Your task to perform on an android device: change the clock style Image 0: 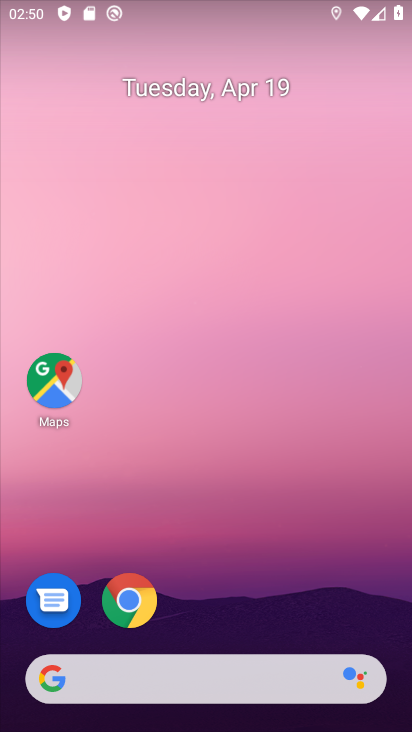
Step 0: drag from (298, 542) to (341, 91)
Your task to perform on an android device: change the clock style Image 1: 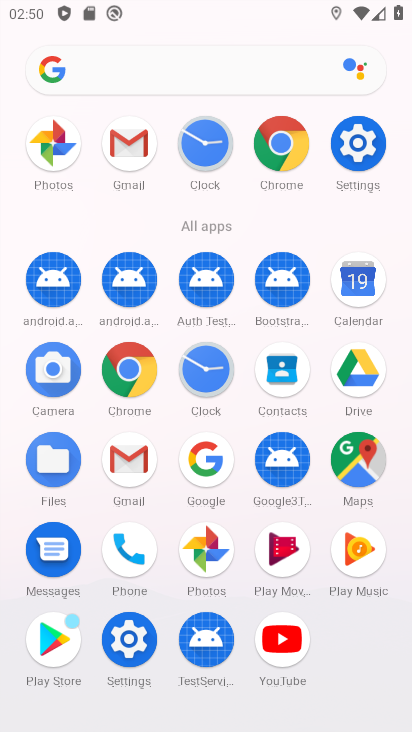
Step 1: click (209, 360)
Your task to perform on an android device: change the clock style Image 2: 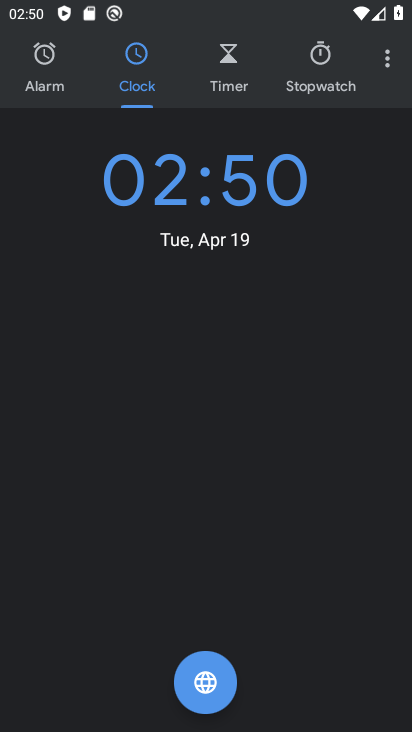
Step 2: click (392, 71)
Your task to perform on an android device: change the clock style Image 3: 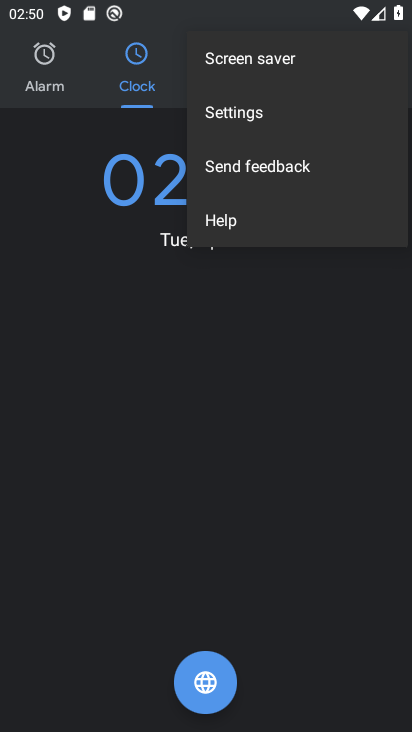
Step 3: click (346, 115)
Your task to perform on an android device: change the clock style Image 4: 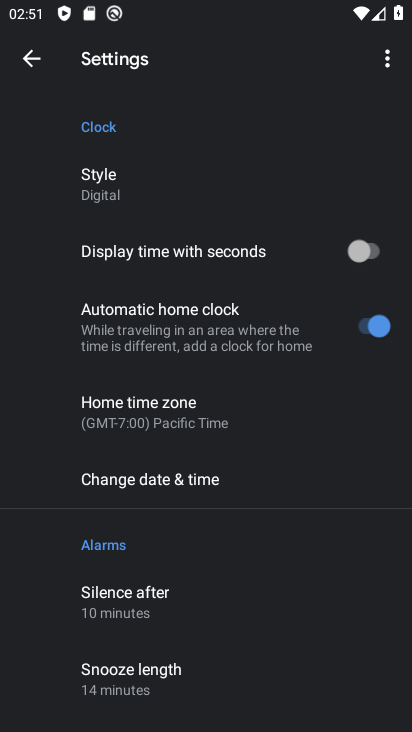
Step 4: click (207, 196)
Your task to perform on an android device: change the clock style Image 5: 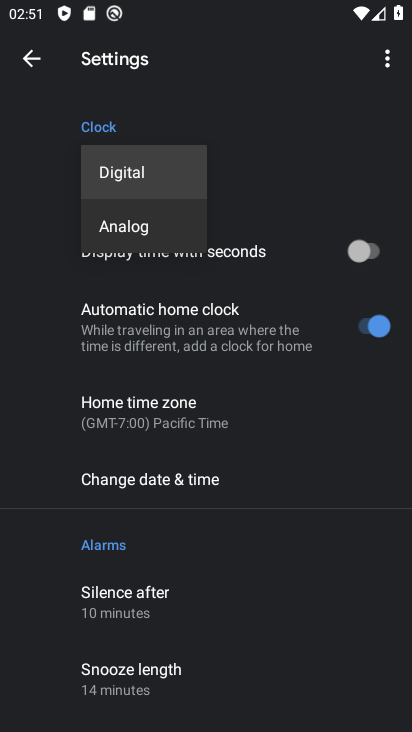
Step 5: click (194, 228)
Your task to perform on an android device: change the clock style Image 6: 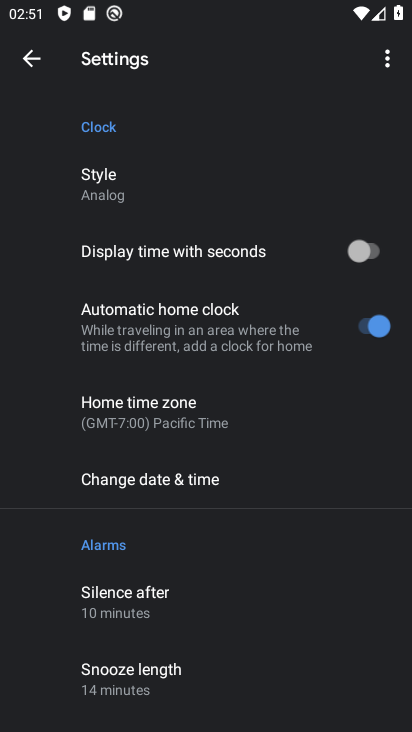
Step 6: task complete